Your task to perform on an android device: Open Youtube and go to "Your channel" Image 0: 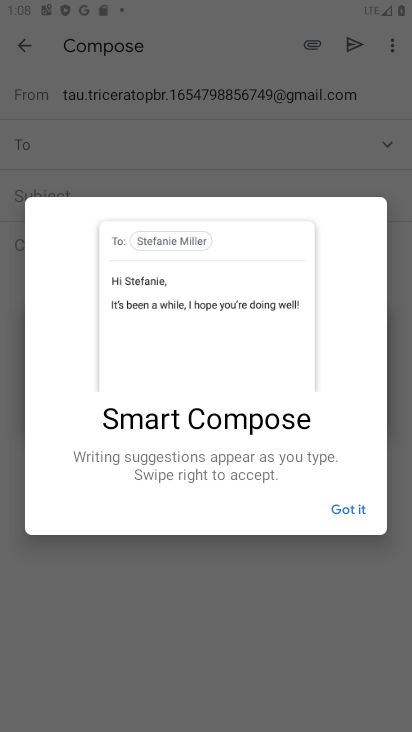
Step 0: press home button
Your task to perform on an android device: Open Youtube and go to "Your channel" Image 1: 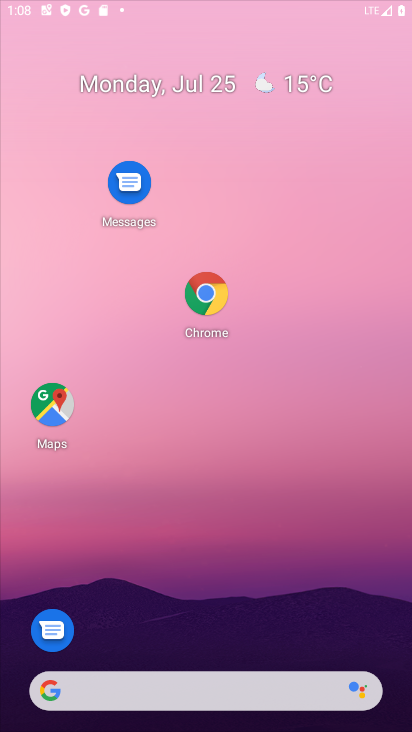
Step 1: drag from (210, 627) to (278, 15)
Your task to perform on an android device: Open Youtube and go to "Your channel" Image 2: 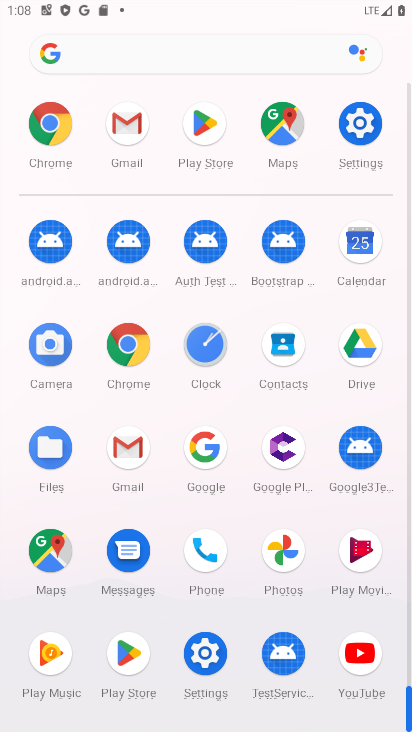
Step 2: click (376, 654)
Your task to perform on an android device: Open Youtube and go to "Your channel" Image 3: 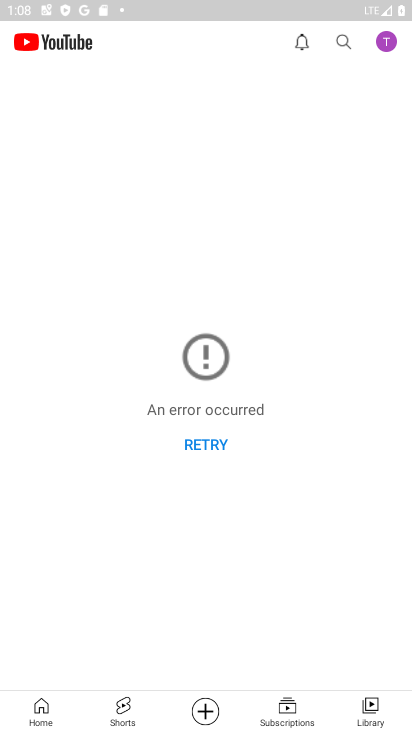
Step 3: click (383, 48)
Your task to perform on an android device: Open Youtube and go to "Your channel" Image 4: 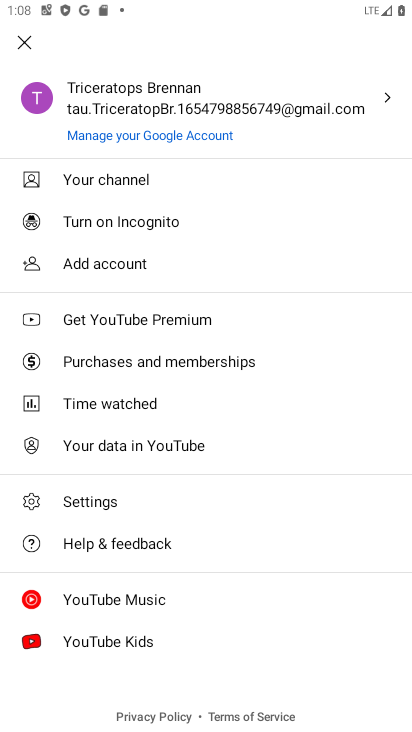
Step 4: click (63, 186)
Your task to perform on an android device: Open Youtube and go to "Your channel" Image 5: 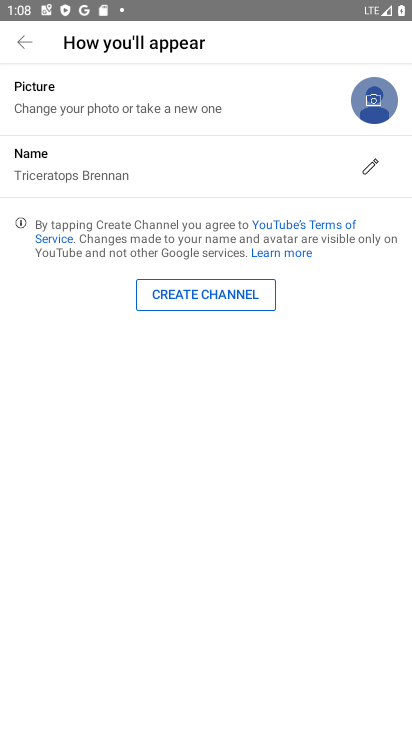
Step 5: task complete